Your task to perform on an android device: turn notification dots on Image 0: 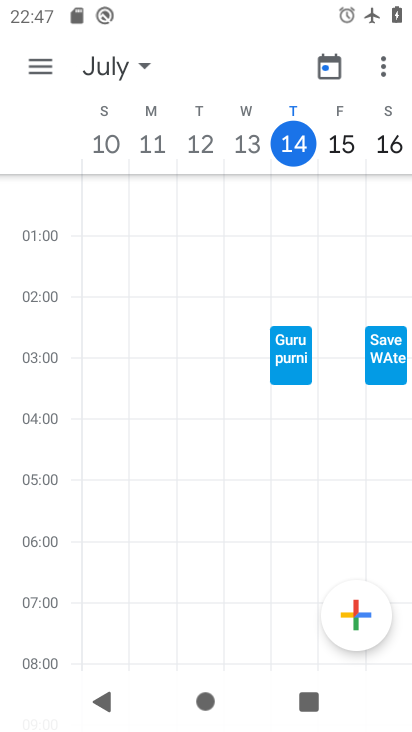
Step 0: press home button
Your task to perform on an android device: turn notification dots on Image 1: 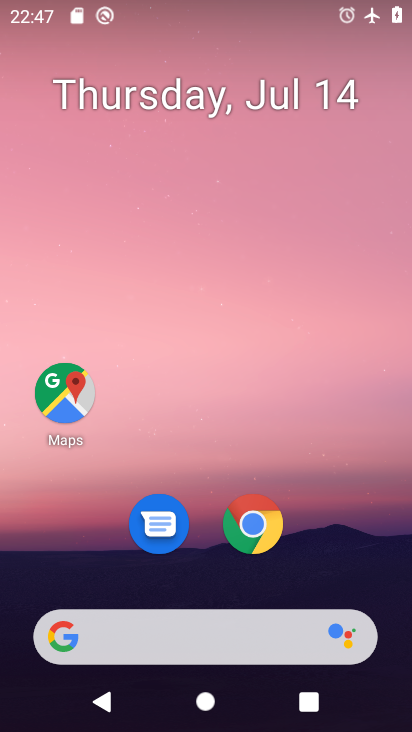
Step 1: drag from (299, 478) to (272, 17)
Your task to perform on an android device: turn notification dots on Image 2: 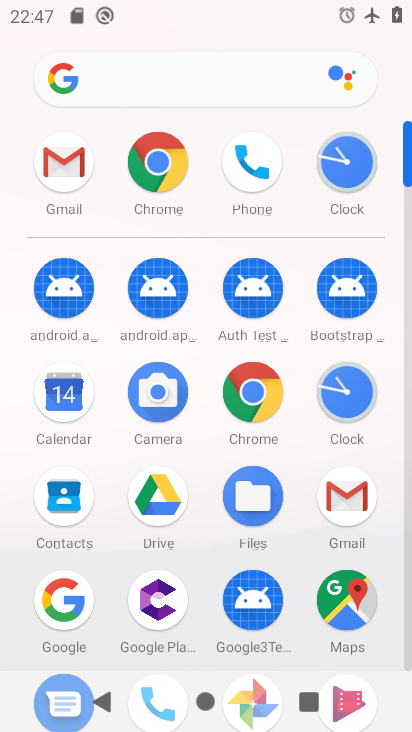
Step 2: drag from (206, 539) to (232, 187)
Your task to perform on an android device: turn notification dots on Image 3: 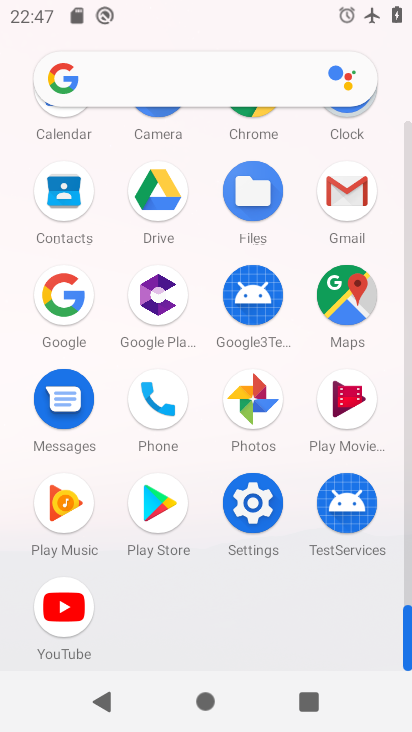
Step 3: click (248, 499)
Your task to perform on an android device: turn notification dots on Image 4: 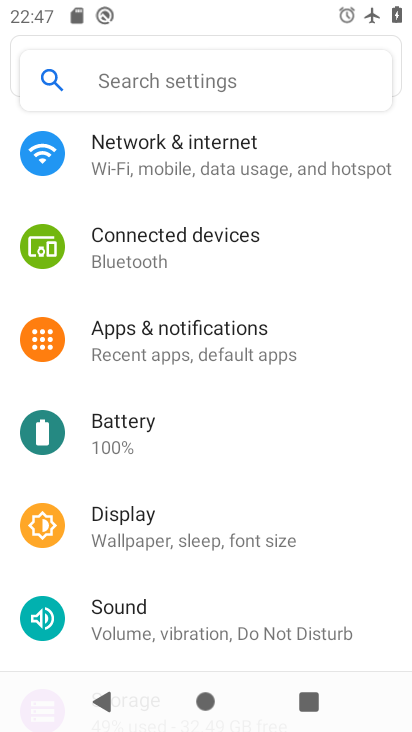
Step 4: click (224, 342)
Your task to perform on an android device: turn notification dots on Image 5: 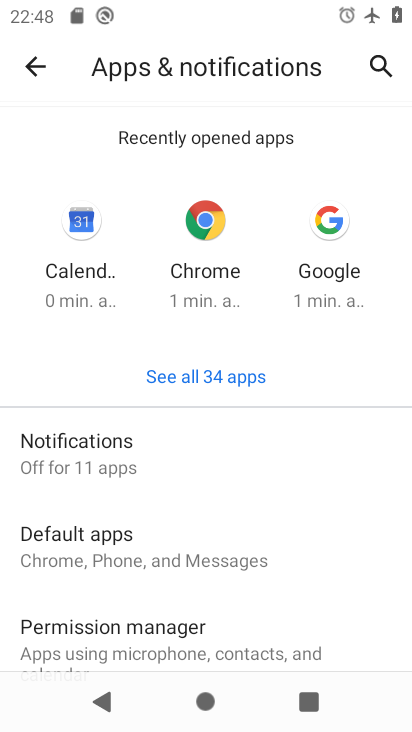
Step 5: click (125, 450)
Your task to perform on an android device: turn notification dots on Image 6: 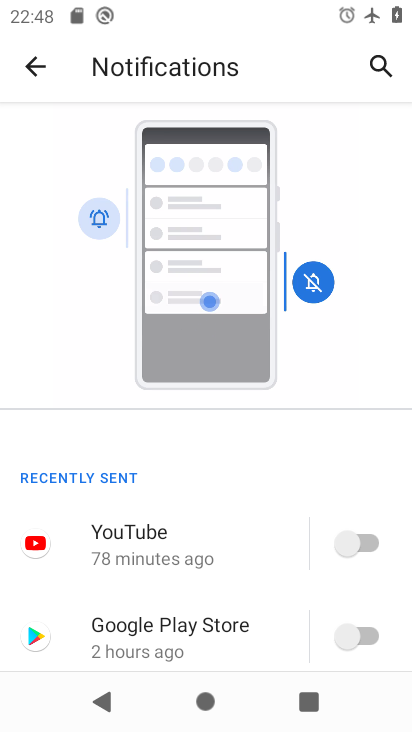
Step 6: drag from (208, 519) to (243, 157)
Your task to perform on an android device: turn notification dots on Image 7: 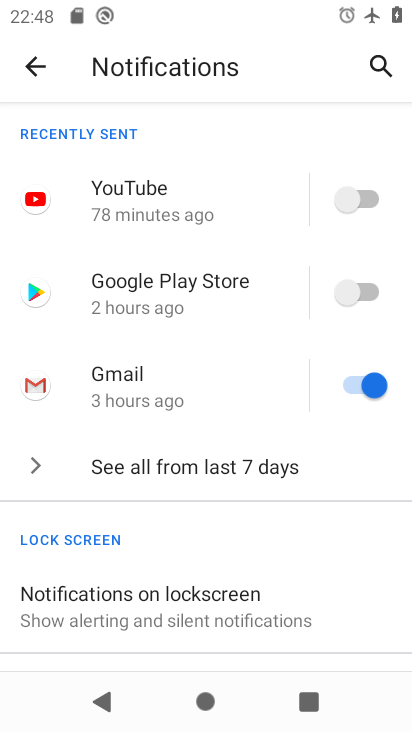
Step 7: drag from (215, 553) to (212, 278)
Your task to perform on an android device: turn notification dots on Image 8: 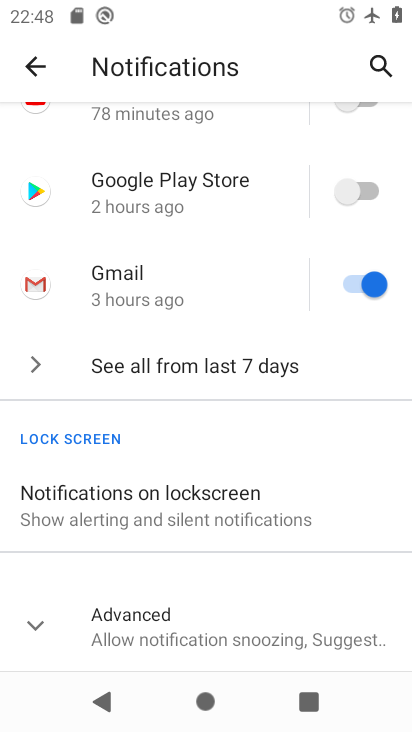
Step 8: click (36, 621)
Your task to perform on an android device: turn notification dots on Image 9: 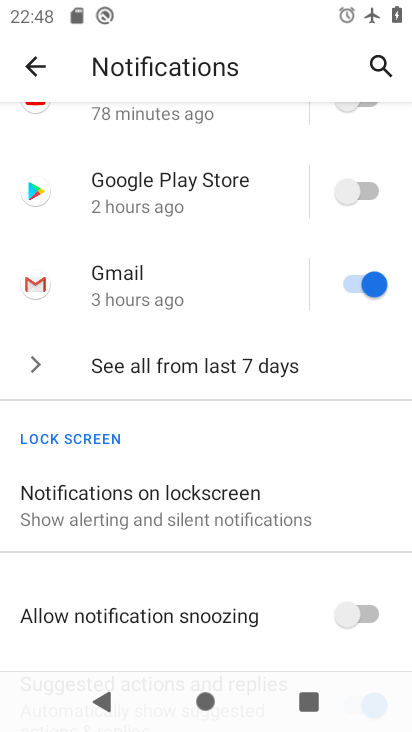
Step 9: drag from (221, 577) to (273, 246)
Your task to perform on an android device: turn notification dots on Image 10: 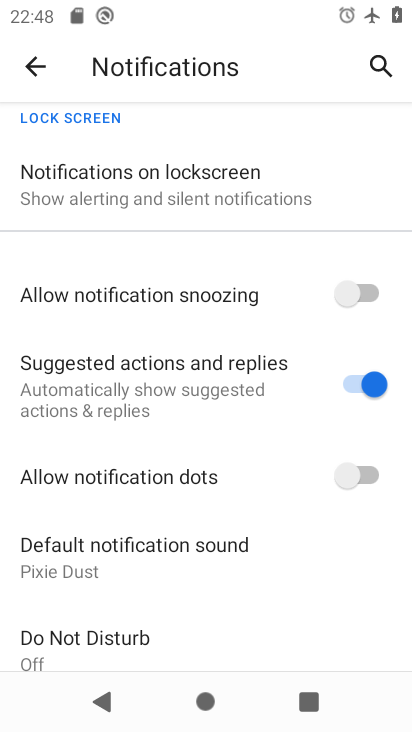
Step 10: click (355, 473)
Your task to perform on an android device: turn notification dots on Image 11: 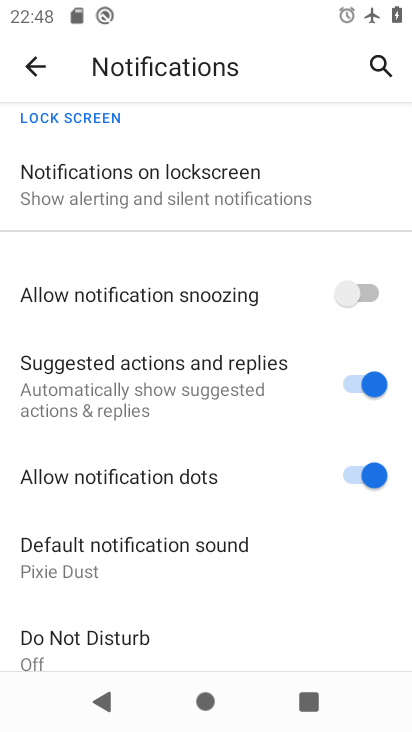
Step 11: task complete